Your task to perform on an android device: toggle wifi Image 0: 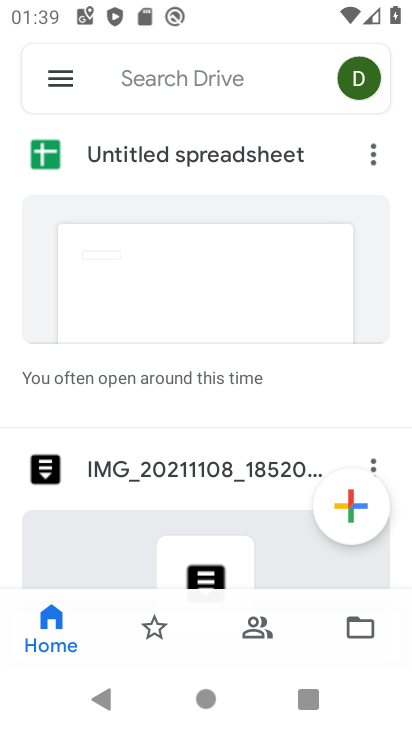
Step 0: press home button
Your task to perform on an android device: toggle wifi Image 1: 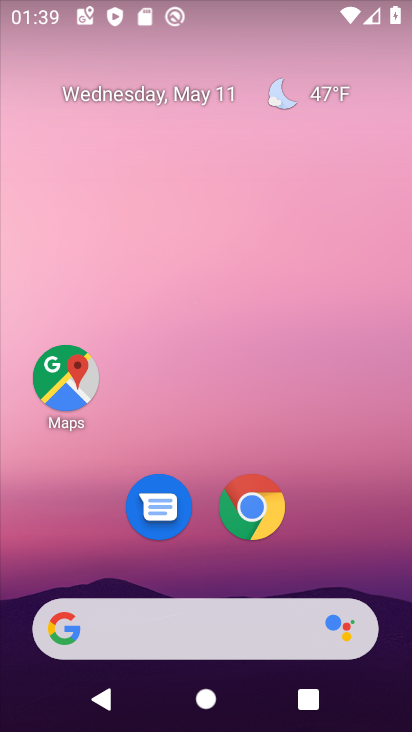
Step 1: drag from (326, 509) to (245, 78)
Your task to perform on an android device: toggle wifi Image 2: 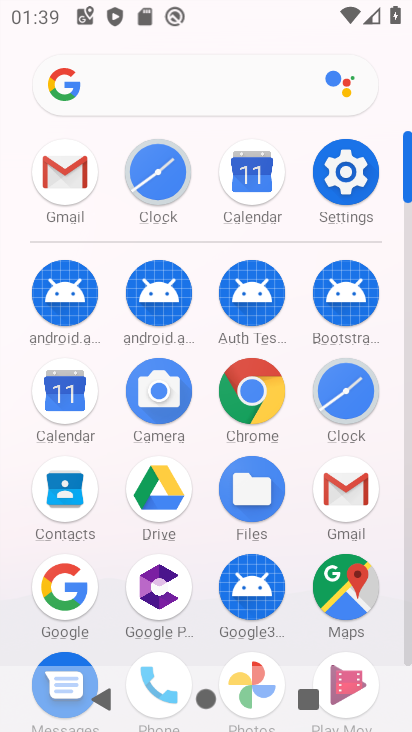
Step 2: click (340, 160)
Your task to perform on an android device: toggle wifi Image 3: 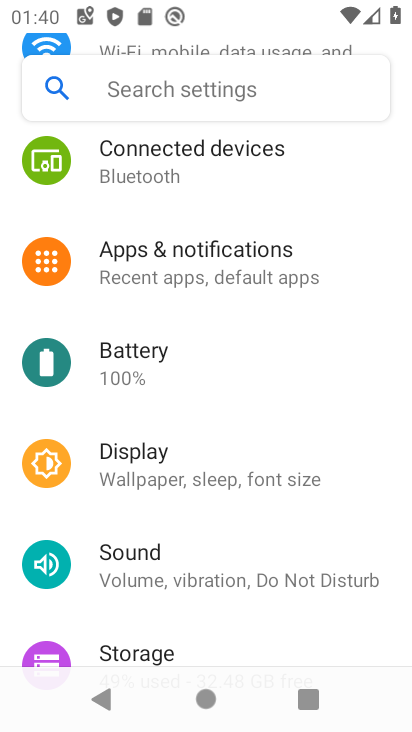
Step 3: drag from (286, 389) to (29, 700)
Your task to perform on an android device: toggle wifi Image 4: 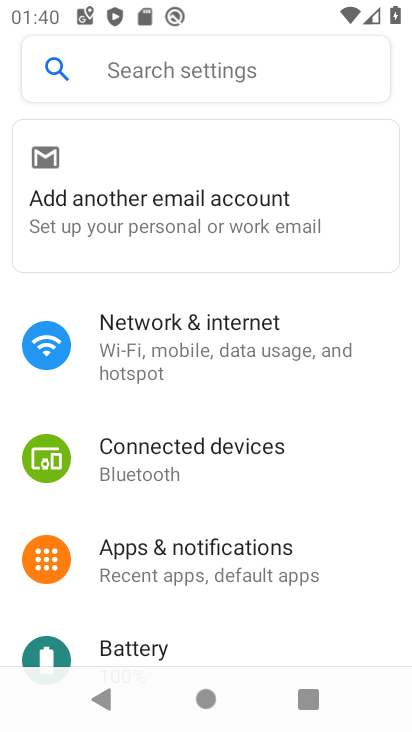
Step 4: click (167, 345)
Your task to perform on an android device: toggle wifi Image 5: 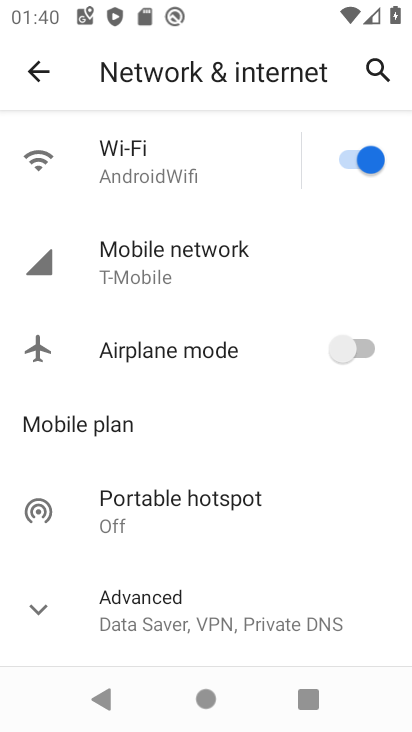
Step 5: click (366, 152)
Your task to perform on an android device: toggle wifi Image 6: 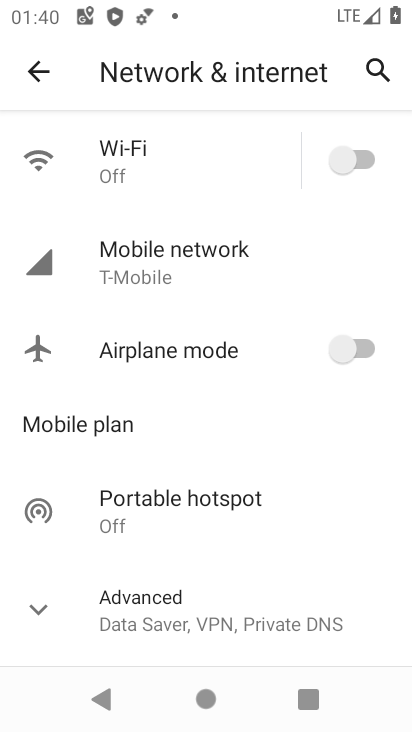
Step 6: task complete